Your task to perform on an android device: open wifi settings Image 0: 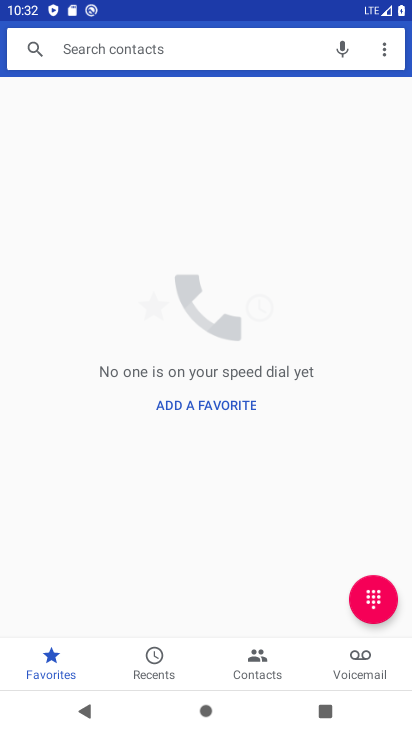
Step 0: press home button
Your task to perform on an android device: open wifi settings Image 1: 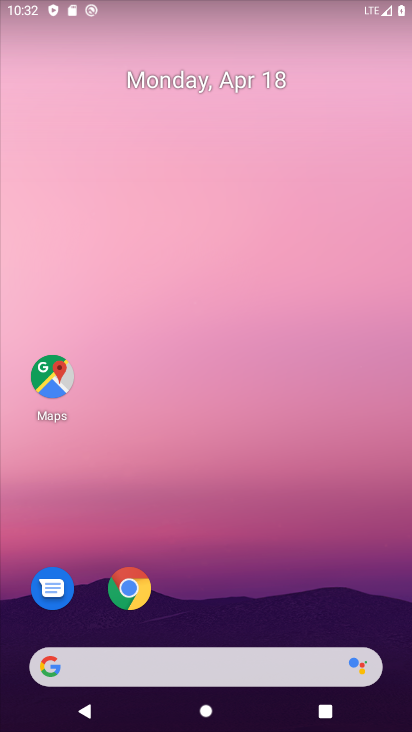
Step 1: drag from (376, 635) to (316, 231)
Your task to perform on an android device: open wifi settings Image 2: 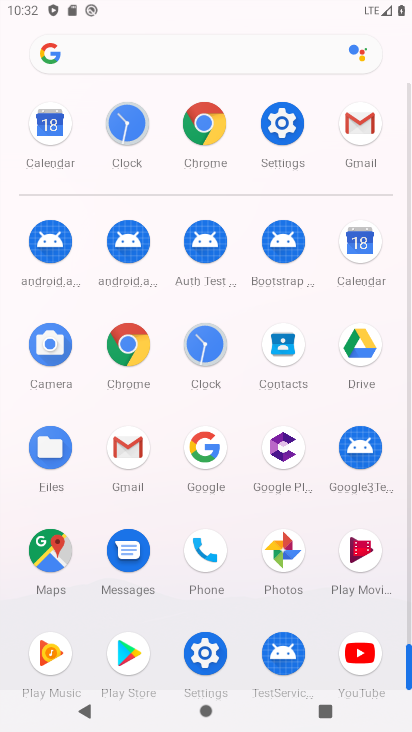
Step 2: click (199, 655)
Your task to perform on an android device: open wifi settings Image 3: 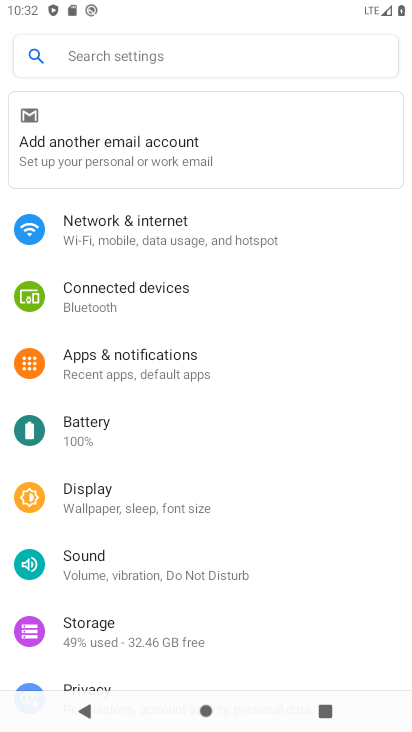
Step 3: click (93, 220)
Your task to perform on an android device: open wifi settings Image 4: 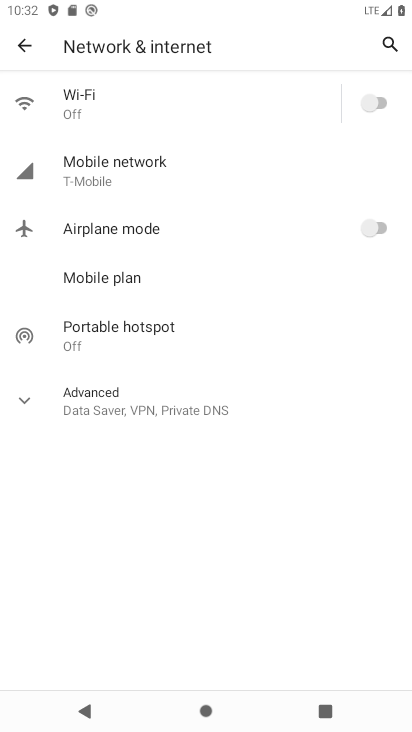
Step 4: click (78, 101)
Your task to perform on an android device: open wifi settings Image 5: 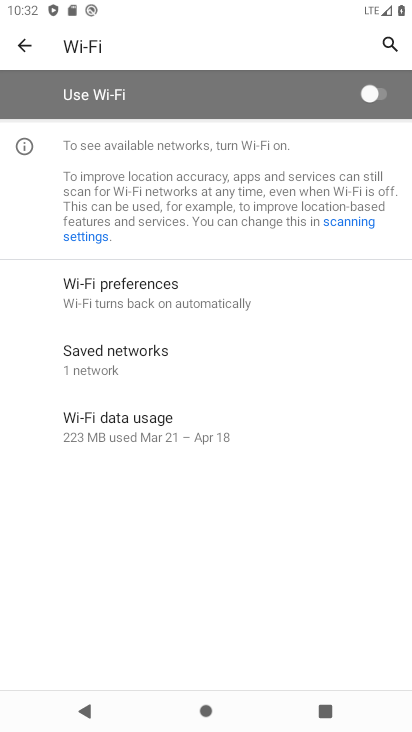
Step 5: task complete